Your task to perform on an android device: check data usage Image 0: 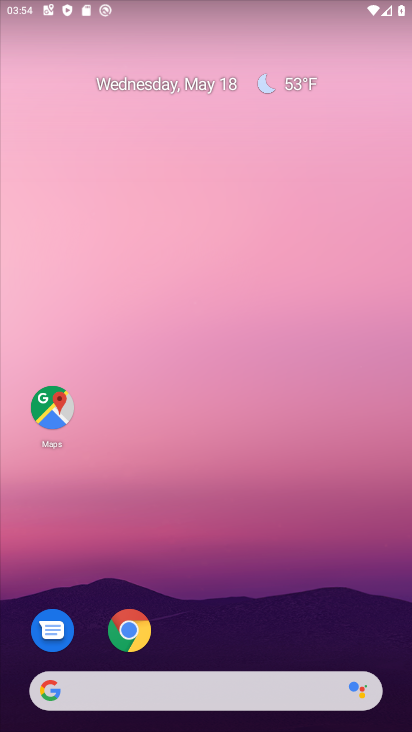
Step 0: drag from (244, 691) to (251, 354)
Your task to perform on an android device: check data usage Image 1: 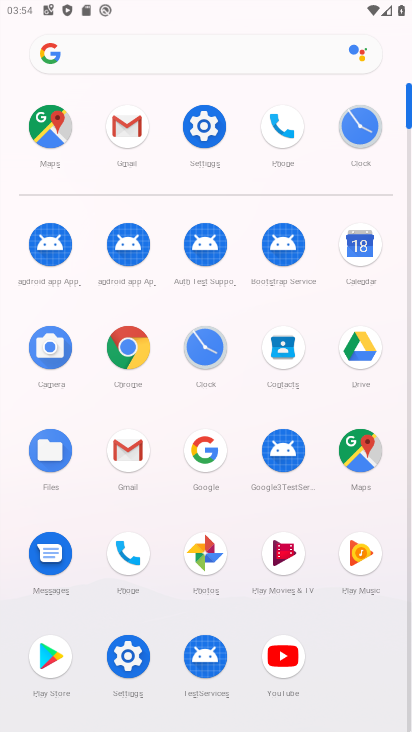
Step 1: click (205, 125)
Your task to perform on an android device: check data usage Image 2: 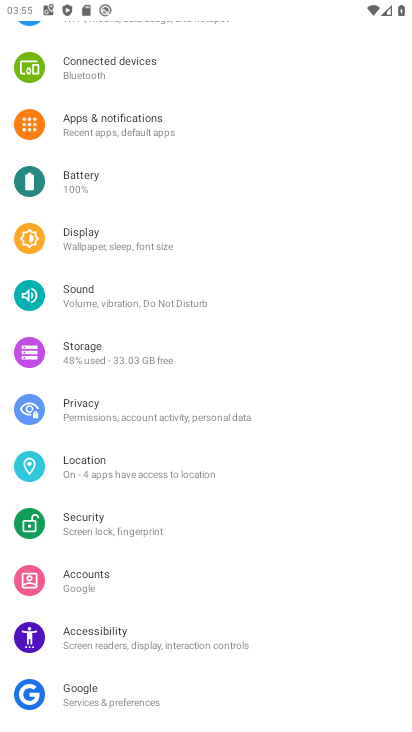
Step 2: drag from (144, 146) to (195, 565)
Your task to perform on an android device: check data usage Image 3: 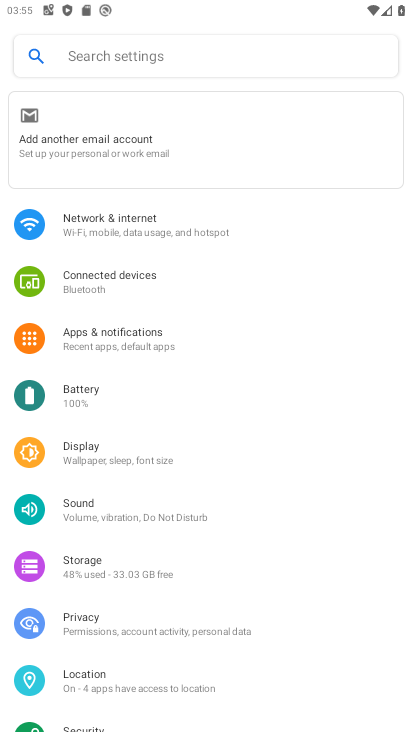
Step 3: click (114, 226)
Your task to perform on an android device: check data usage Image 4: 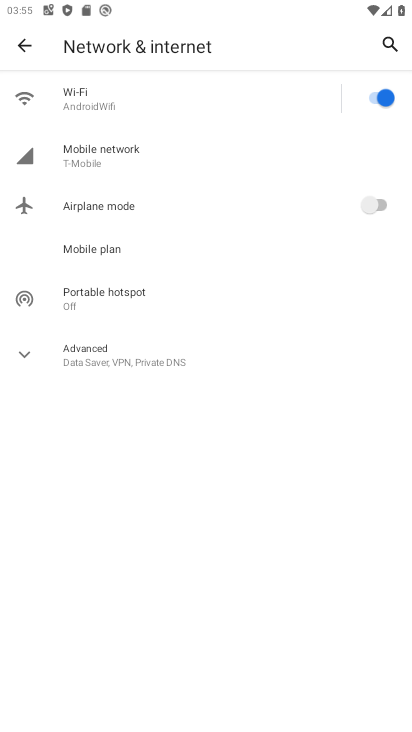
Step 4: click (103, 151)
Your task to perform on an android device: check data usage Image 5: 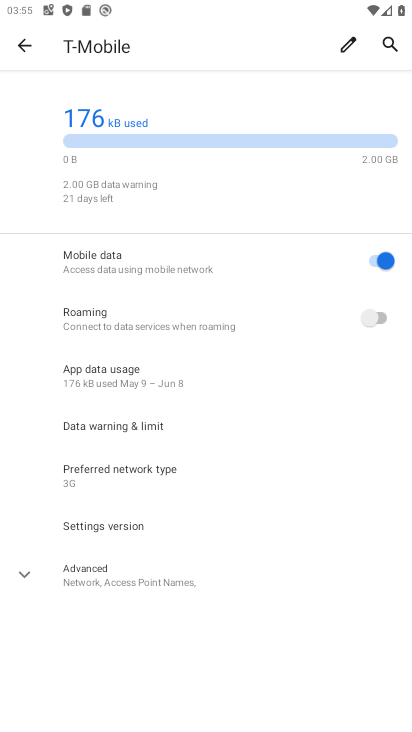
Step 5: click (114, 378)
Your task to perform on an android device: check data usage Image 6: 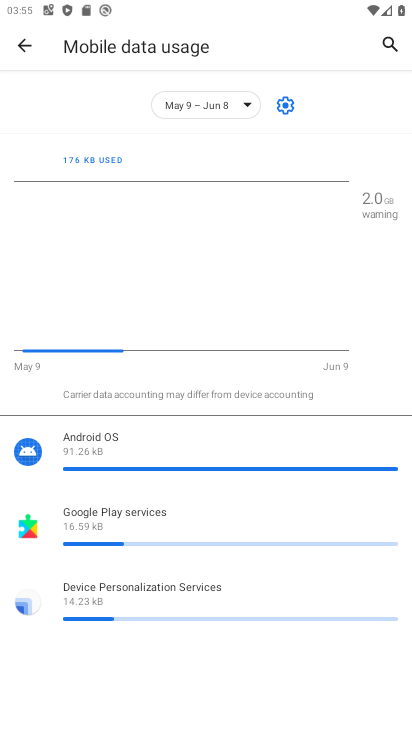
Step 6: task complete